Your task to perform on an android device: Open Reddit.com Image 0: 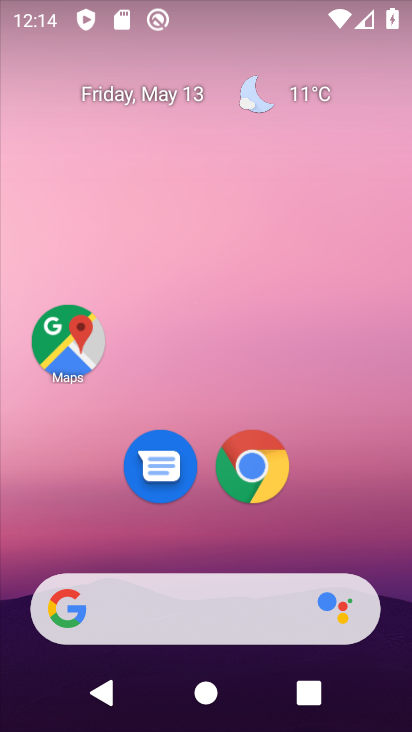
Step 0: click (274, 477)
Your task to perform on an android device: Open Reddit.com Image 1: 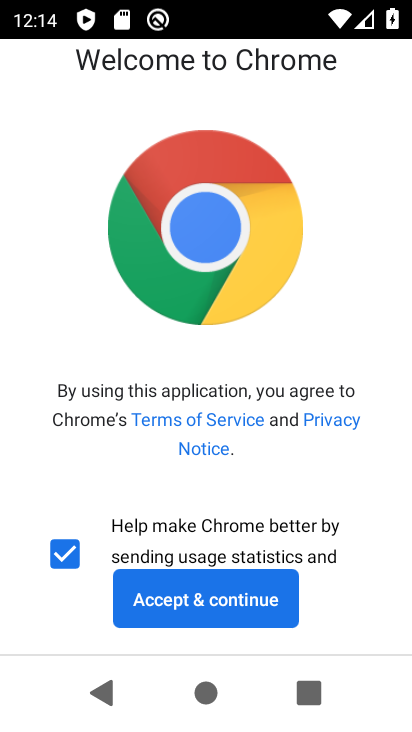
Step 1: click (220, 606)
Your task to perform on an android device: Open Reddit.com Image 2: 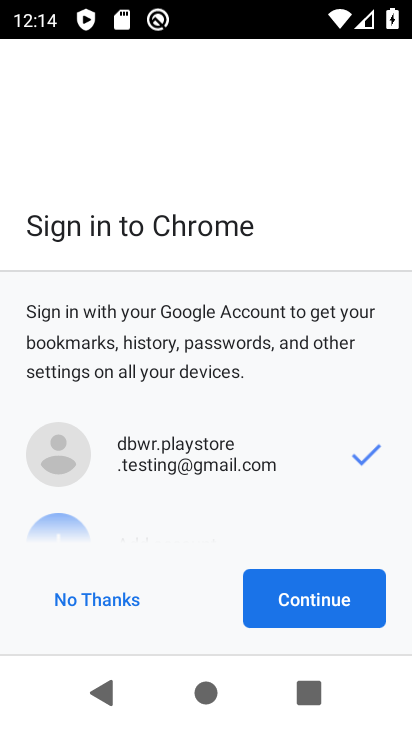
Step 2: click (276, 586)
Your task to perform on an android device: Open Reddit.com Image 3: 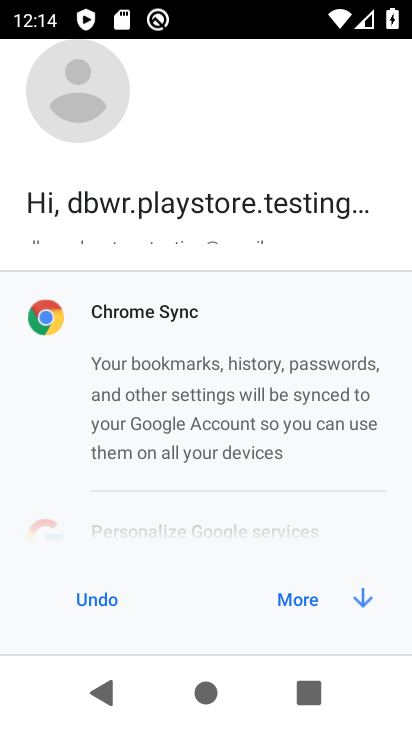
Step 3: click (305, 601)
Your task to perform on an android device: Open Reddit.com Image 4: 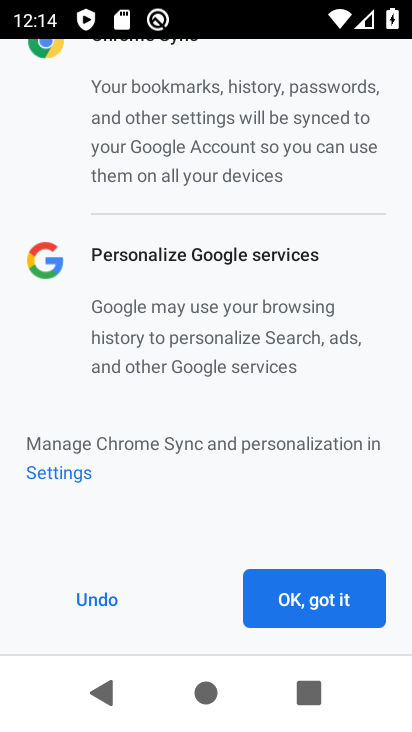
Step 4: click (305, 601)
Your task to perform on an android device: Open Reddit.com Image 5: 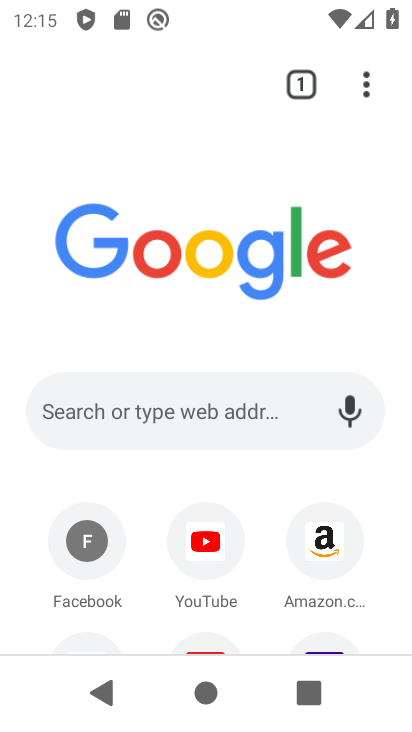
Step 5: click (219, 425)
Your task to perform on an android device: Open Reddit.com Image 6: 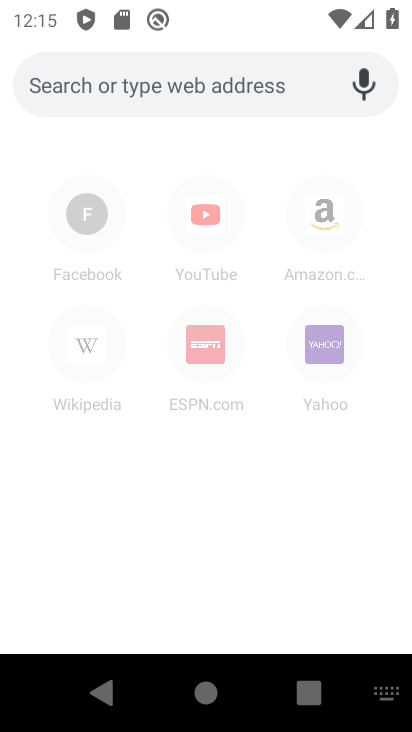
Step 6: type "reddit.com"
Your task to perform on an android device: Open Reddit.com Image 7: 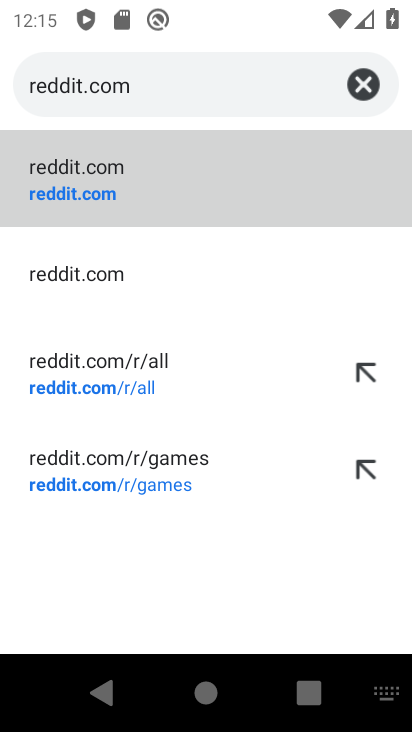
Step 7: click (168, 153)
Your task to perform on an android device: Open Reddit.com Image 8: 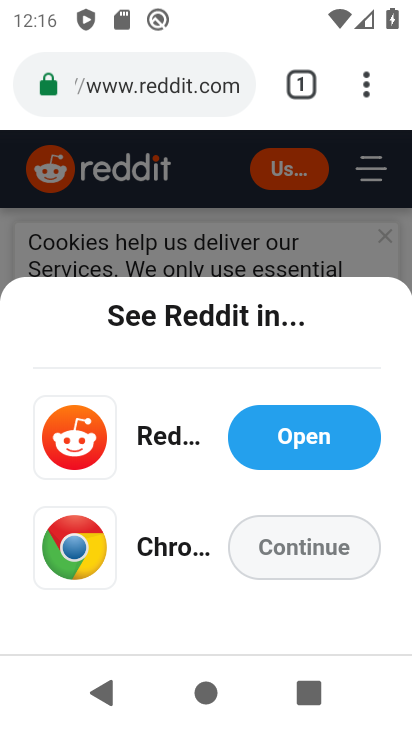
Step 8: task complete